Your task to perform on an android device: delete browsing data in the chrome app Image 0: 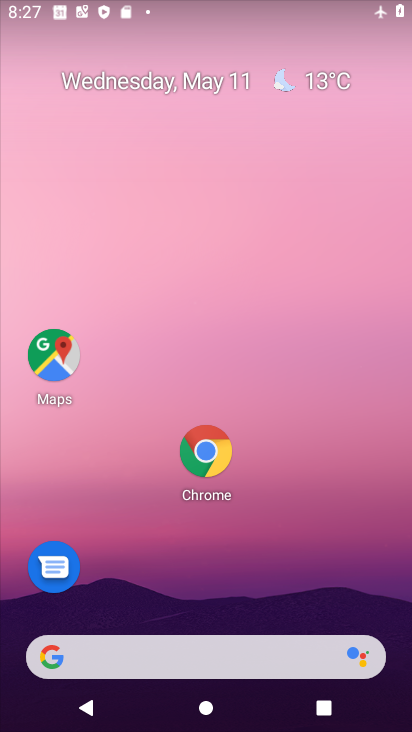
Step 0: press home button
Your task to perform on an android device: delete browsing data in the chrome app Image 1: 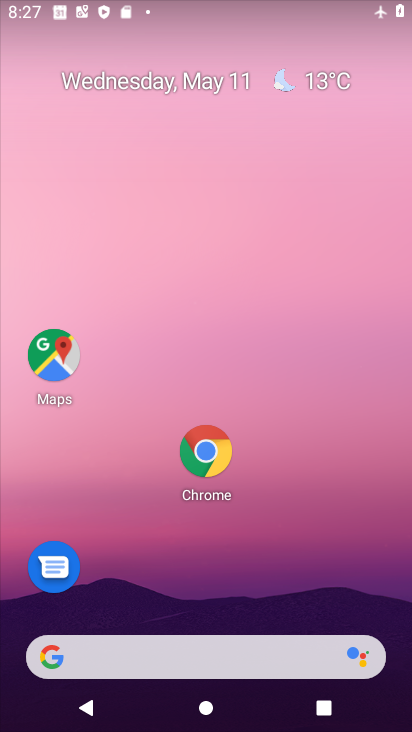
Step 1: click (206, 459)
Your task to perform on an android device: delete browsing data in the chrome app Image 2: 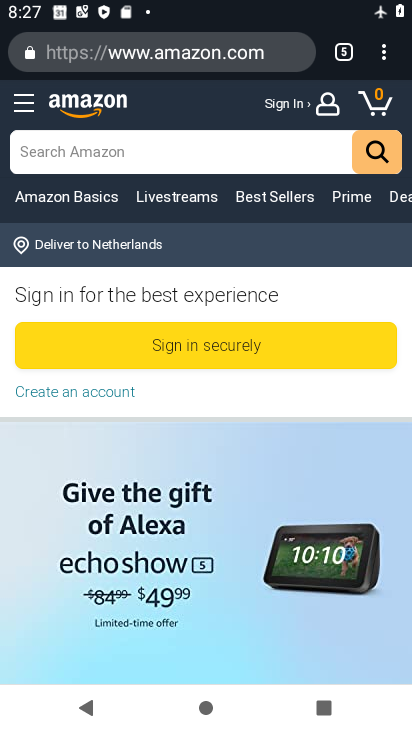
Step 2: drag from (384, 56) to (202, 580)
Your task to perform on an android device: delete browsing data in the chrome app Image 3: 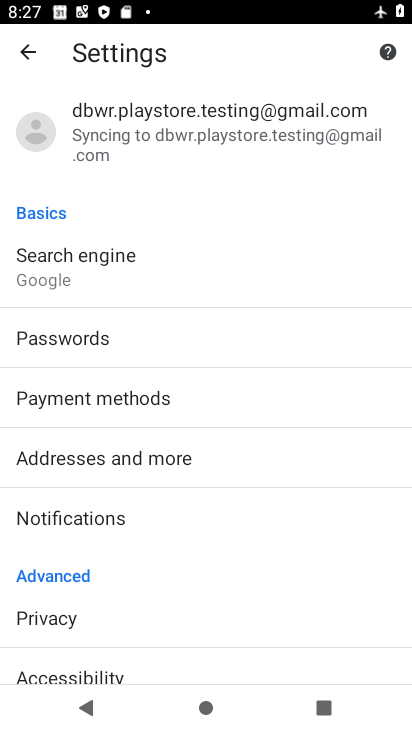
Step 3: click (56, 617)
Your task to perform on an android device: delete browsing data in the chrome app Image 4: 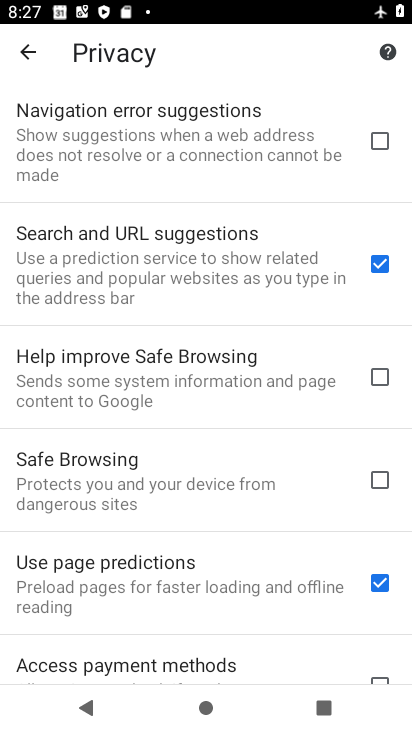
Step 4: drag from (108, 633) to (317, 285)
Your task to perform on an android device: delete browsing data in the chrome app Image 5: 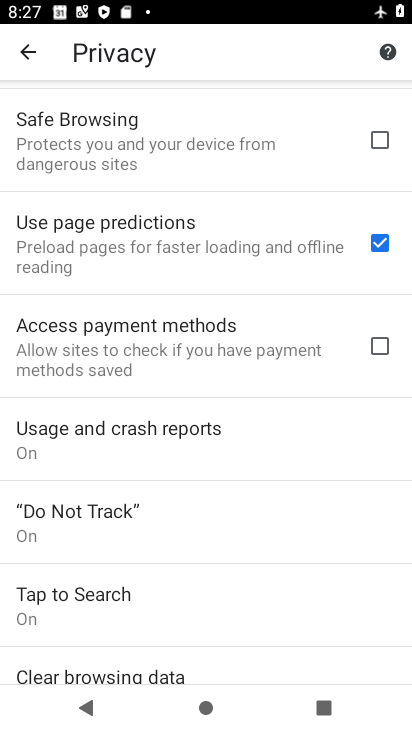
Step 5: drag from (226, 552) to (341, 343)
Your task to perform on an android device: delete browsing data in the chrome app Image 6: 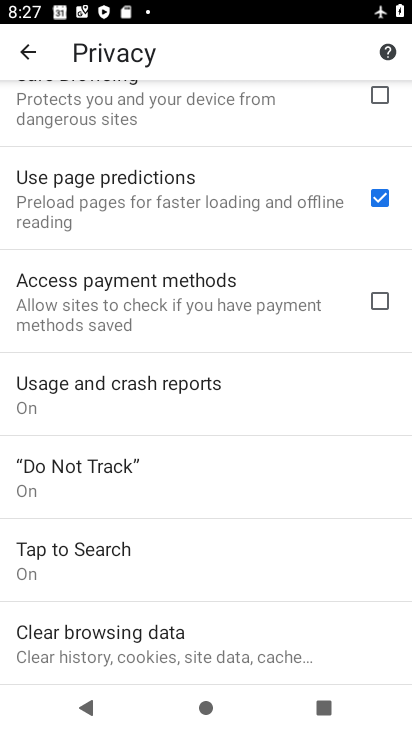
Step 6: click (150, 651)
Your task to perform on an android device: delete browsing data in the chrome app Image 7: 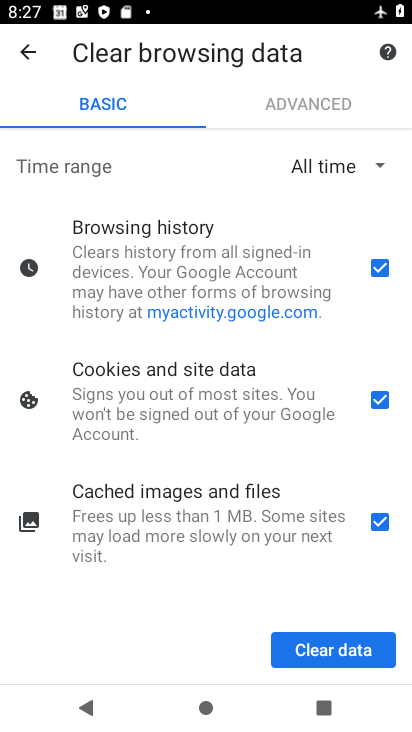
Step 7: click (342, 651)
Your task to perform on an android device: delete browsing data in the chrome app Image 8: 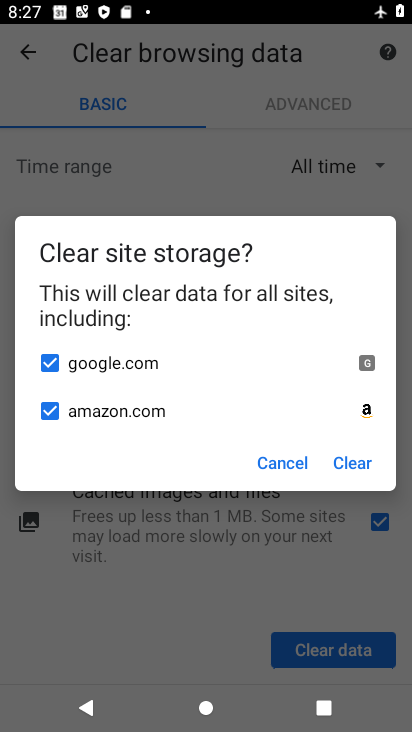
Step 8: click (369, 460)
Your task to perform on an android device: delete browsing data in the chrome app Image 9: 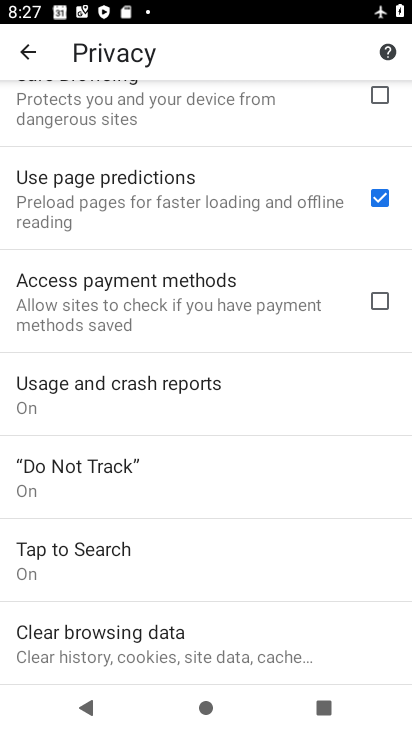
Step 9: task complete